Your task to perform on an android device: see sites visited before in the chrome app Image 0: 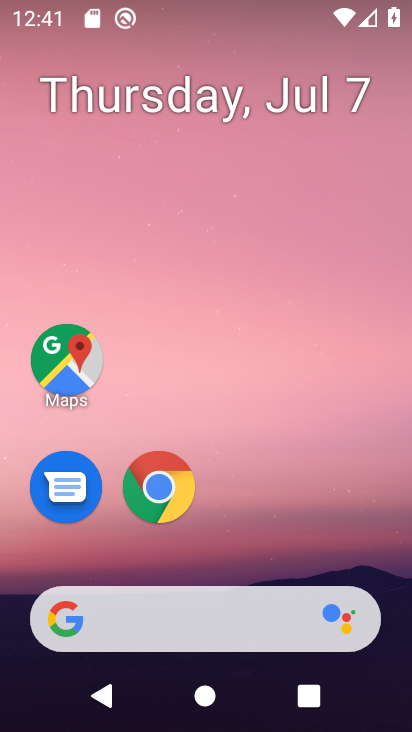
Step 0: drag from (363, 528) to (408, 411)
Your task to perform on an android device: see sites visited before in the chrome app Image 1: 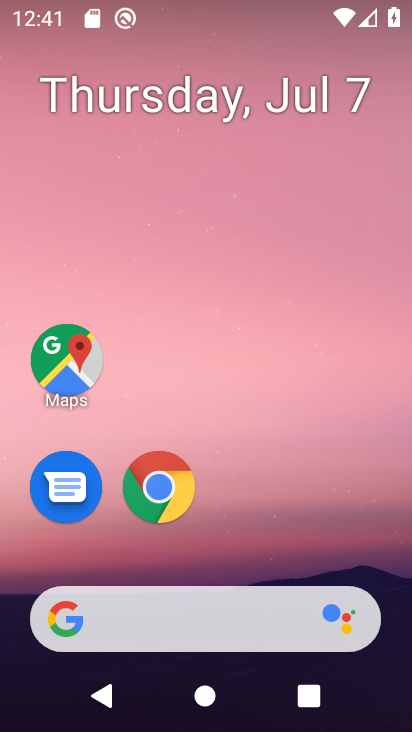
Step 1: drag from (369, 534) to (368, 103)
Your task to perform on an android device: see sites visited before in the chrome app Image 2: 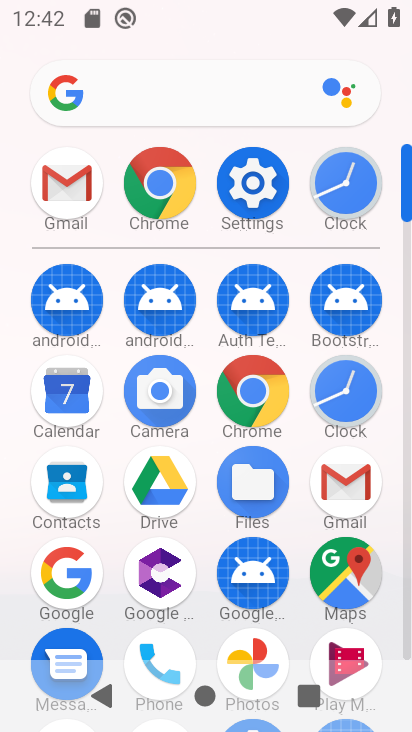
Step 2: click (264, 402)
Your task to perform on an android device: see sites visited before in the chrome app Image 3: 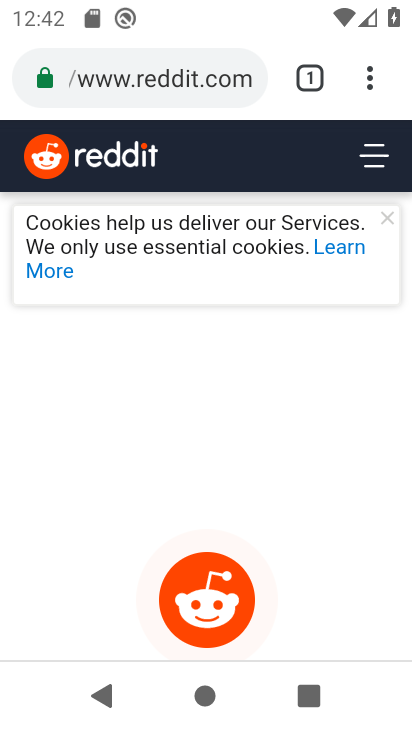
Step 3: click (366, 82)
Your task to perform on an android device: see sites visited before in the chrome app Image 4: 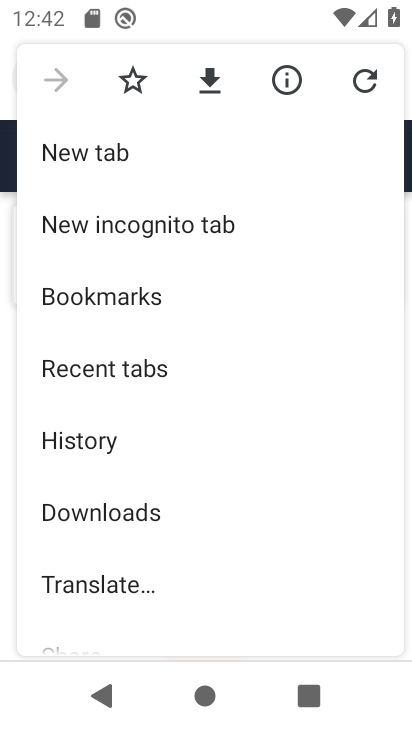
Step 4: drag from (288, 491) to (297, 330)
Your task to perform on an android device: see sites visited before in the chrome app Image 5: 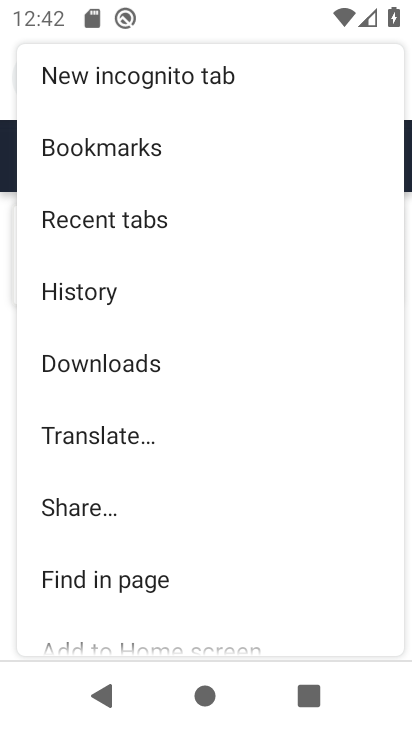
Step 5: drag from (286, 471) to (293, 337)
Your task to perform on an android device: see sites visited before in the chrome app Image 6: 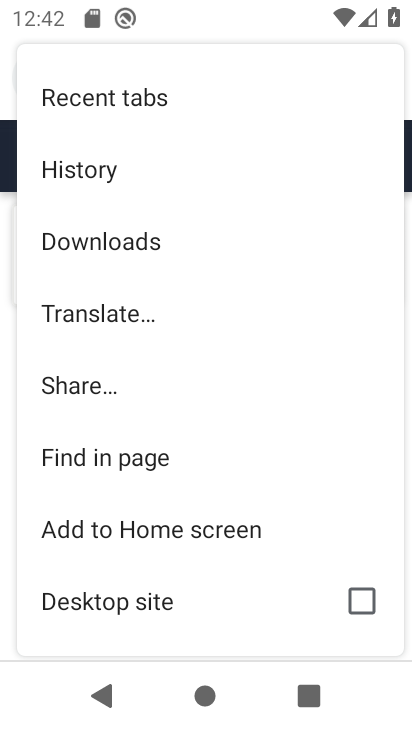
Step 6: click (132, 185)
Your task to perform on an android device: see sites visited before in the chrome app Image 7: 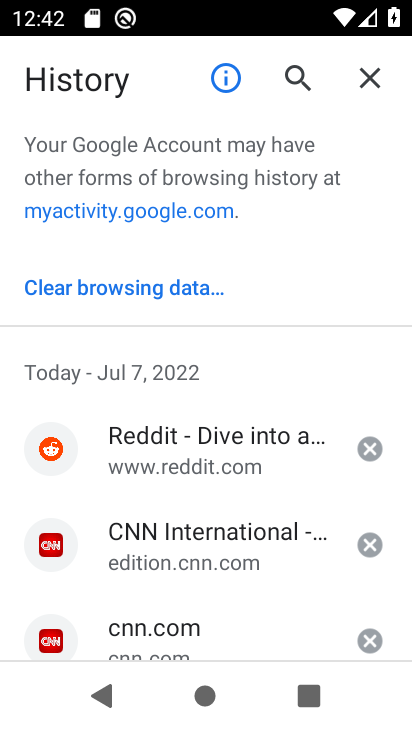
Step 7: task complete